Your task to perform on an android device: see tabs open on other devices in the chrome app Image 0: 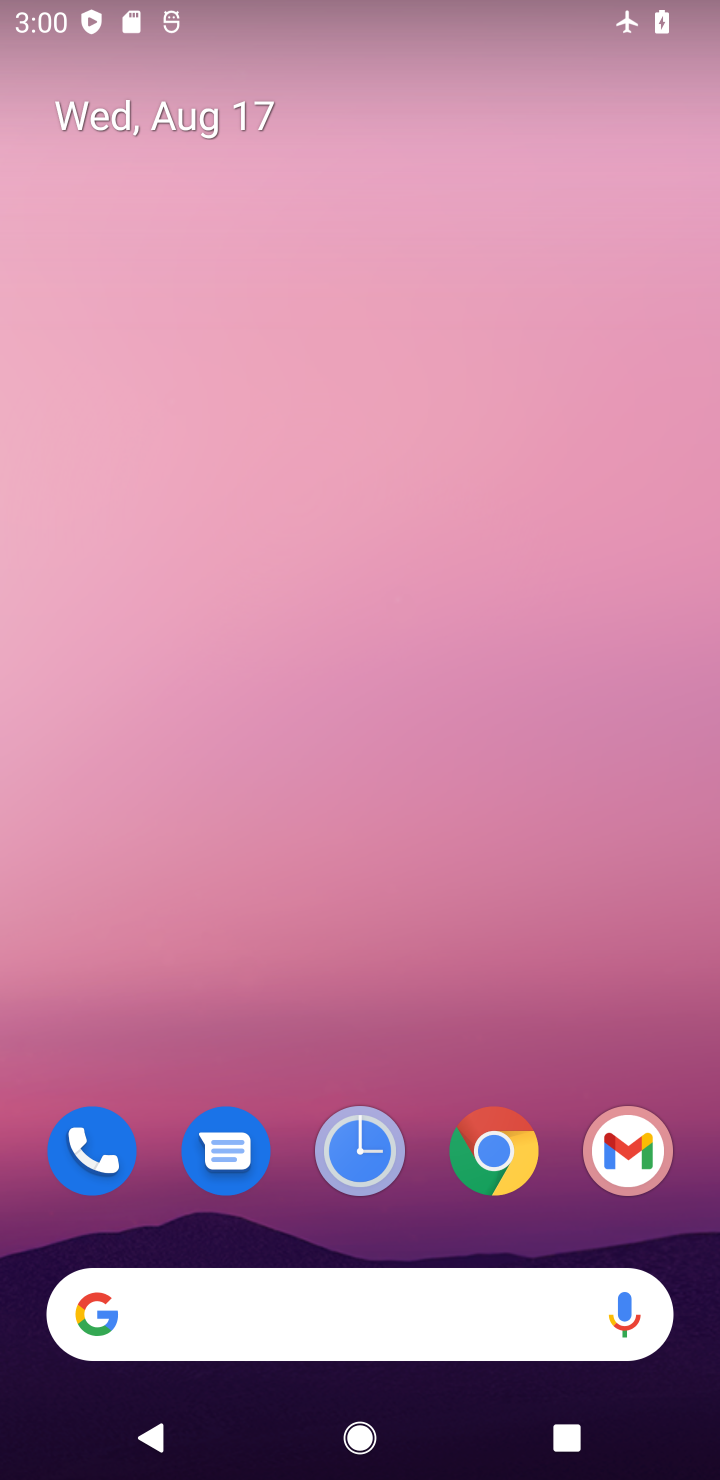
Step 0: drag from (229, 1185) to (229, 841)
Your task to perform on an android device: see tabs open on other devices in the chrome app Image 1: 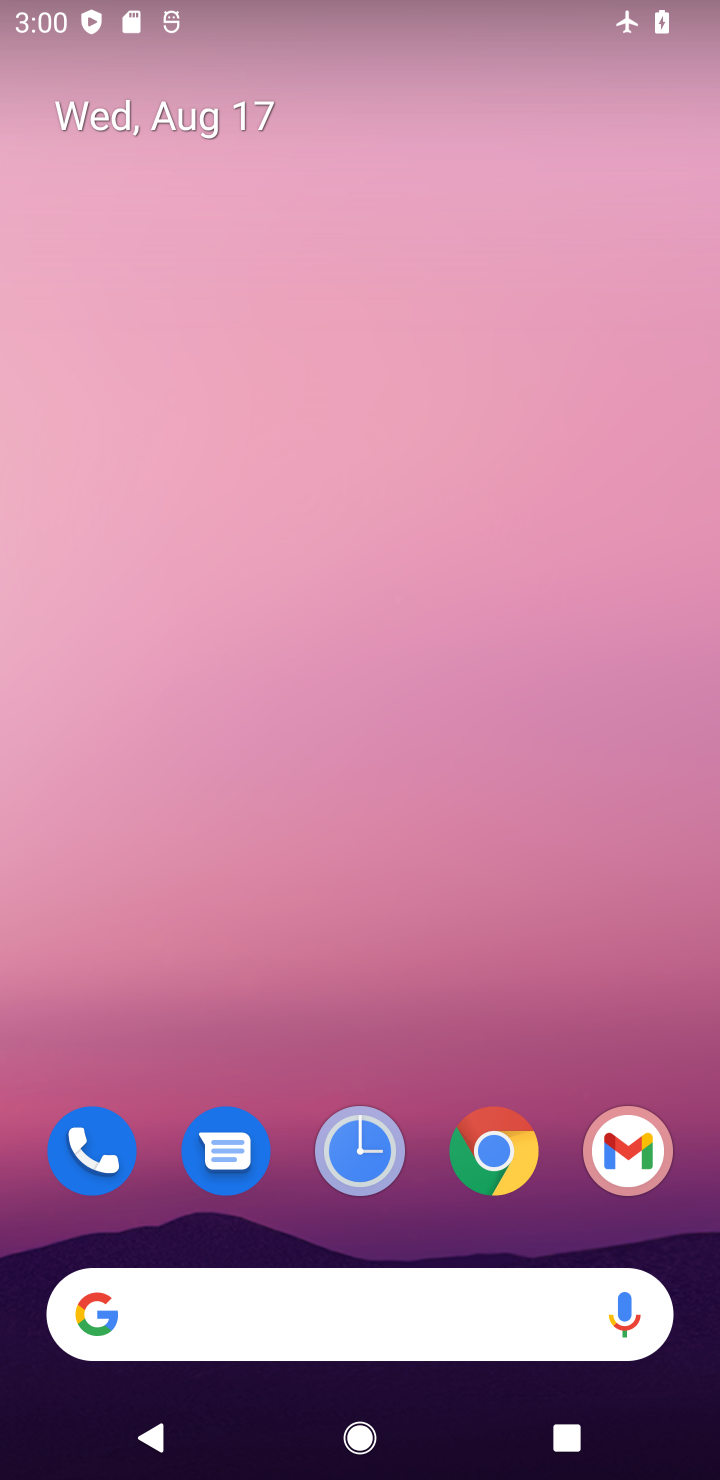
Step 1: drag from (428, 908) to (451, 446)
Your task to perform on an android device: see tabs open on other devices in the chrome app Image 2: 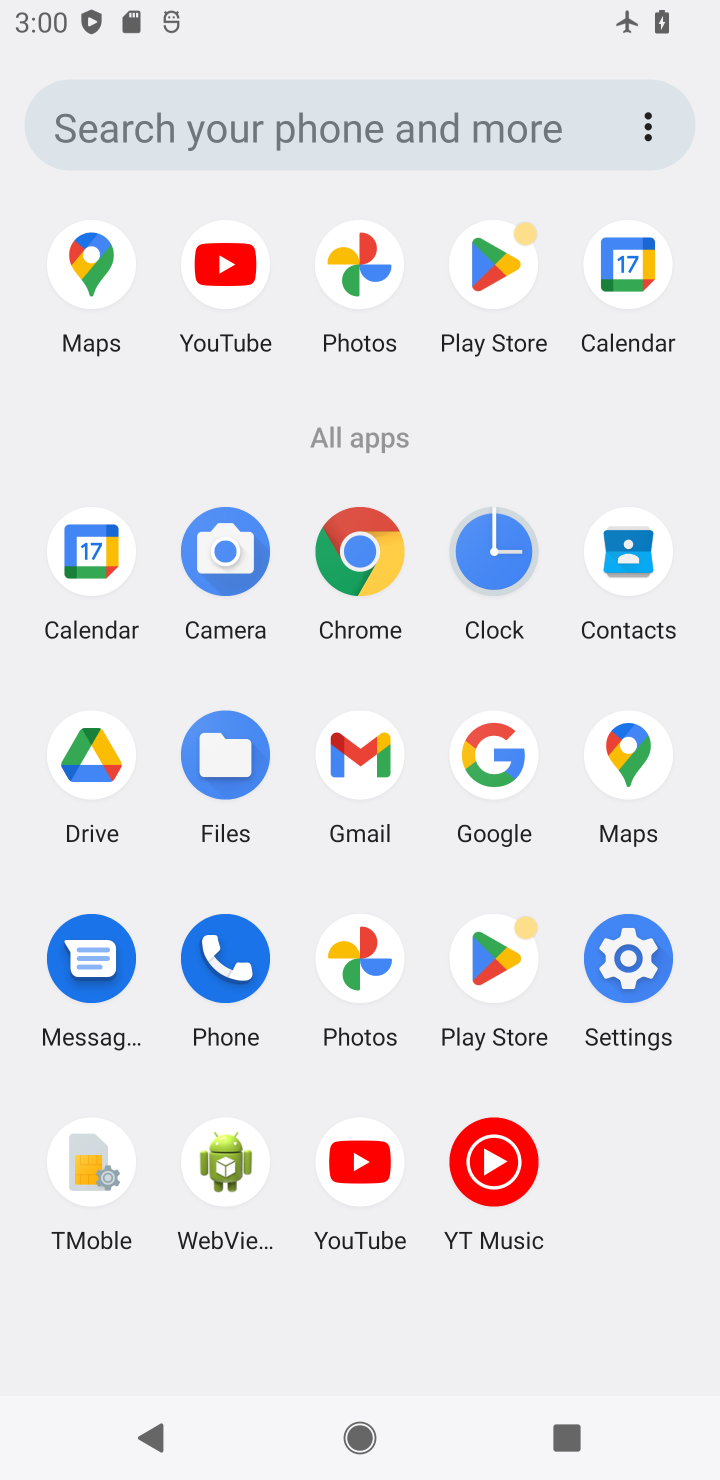
Step 2: click (377, 545)
Your task to perform on an android device: see tabs open on other devices in the chrome app Image 3: 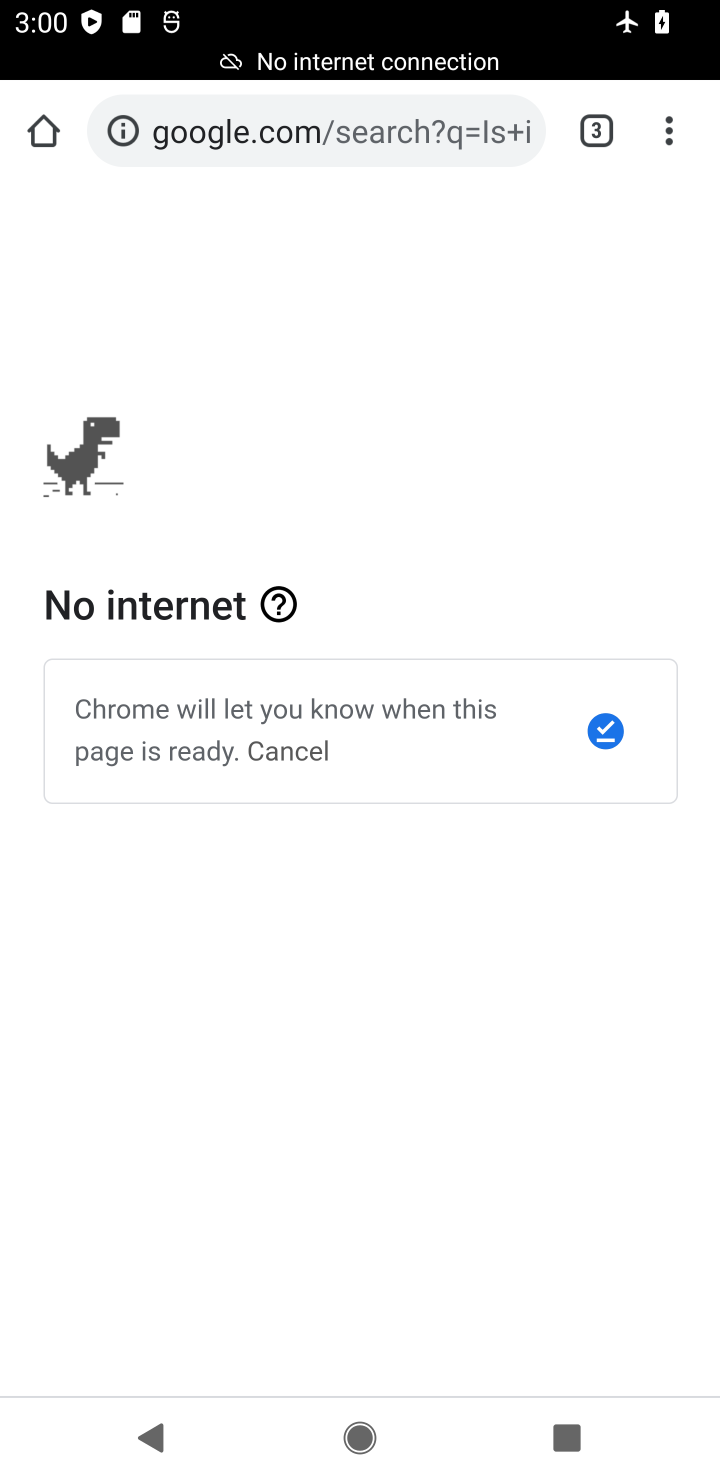
Step 3: click (672, 141)
Your task to perform on an android device: see tabs open on other devices in the chrome app Image 4: 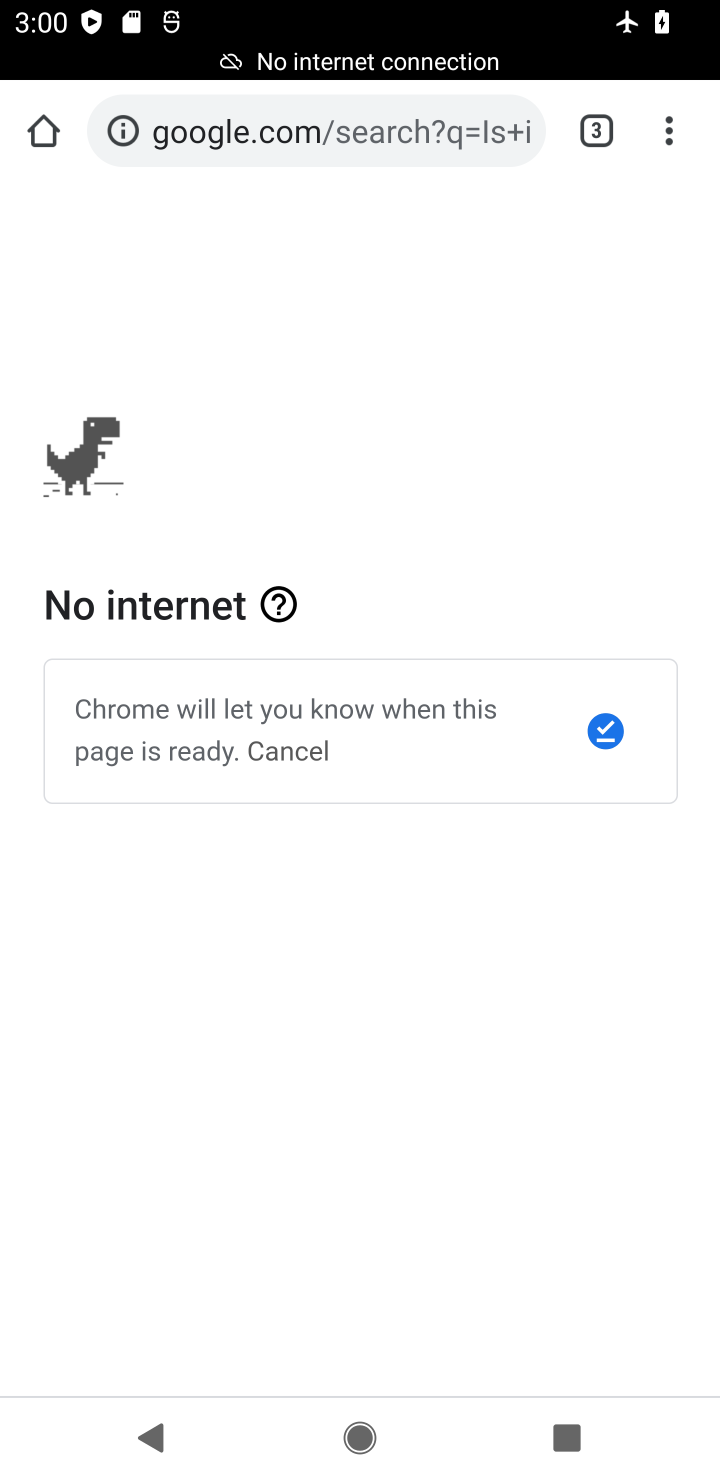
Step 4: click (694, 117)
Your task to perform on an android device: see tabs open on other devices in the chrome app Image 5: 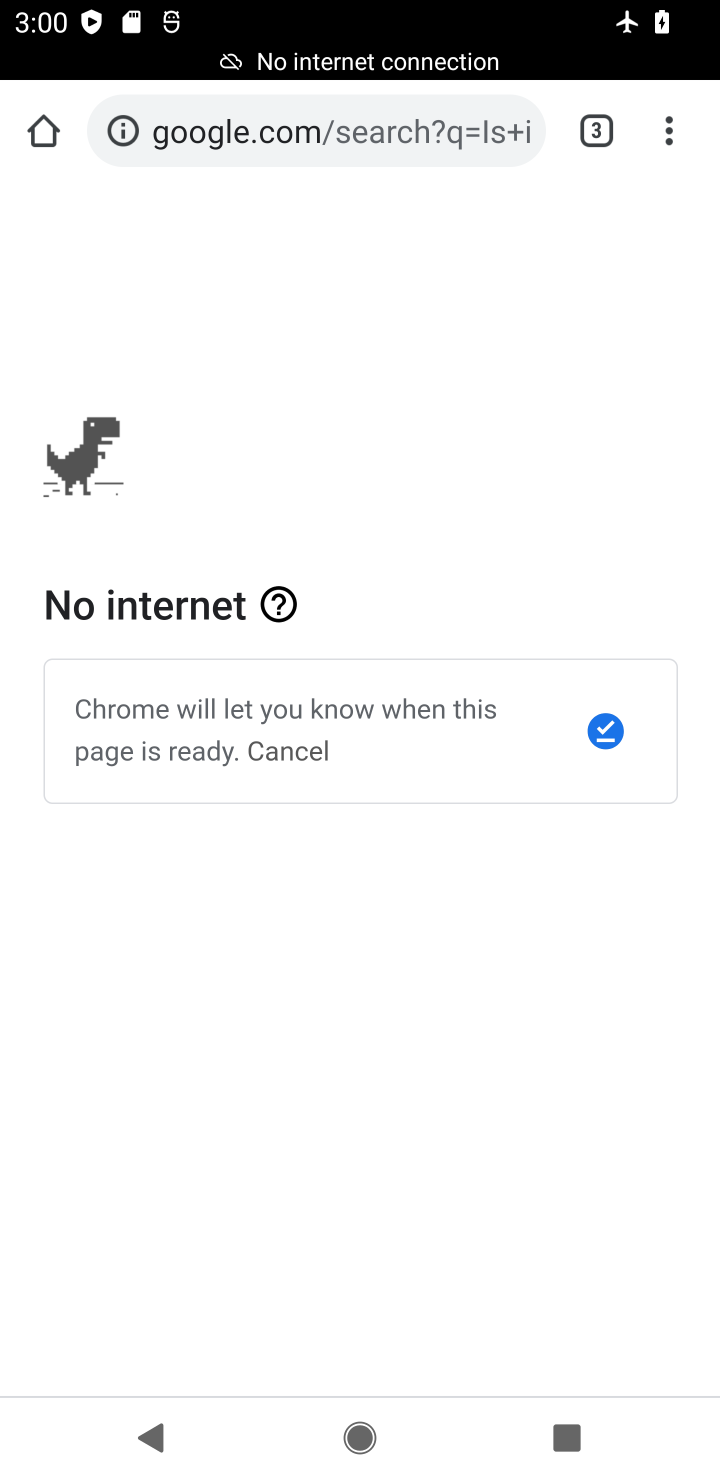
Step 5: click (689, 128)
Your task to perform on an android device: see tabs open on other devices in the chrome app Image 6: 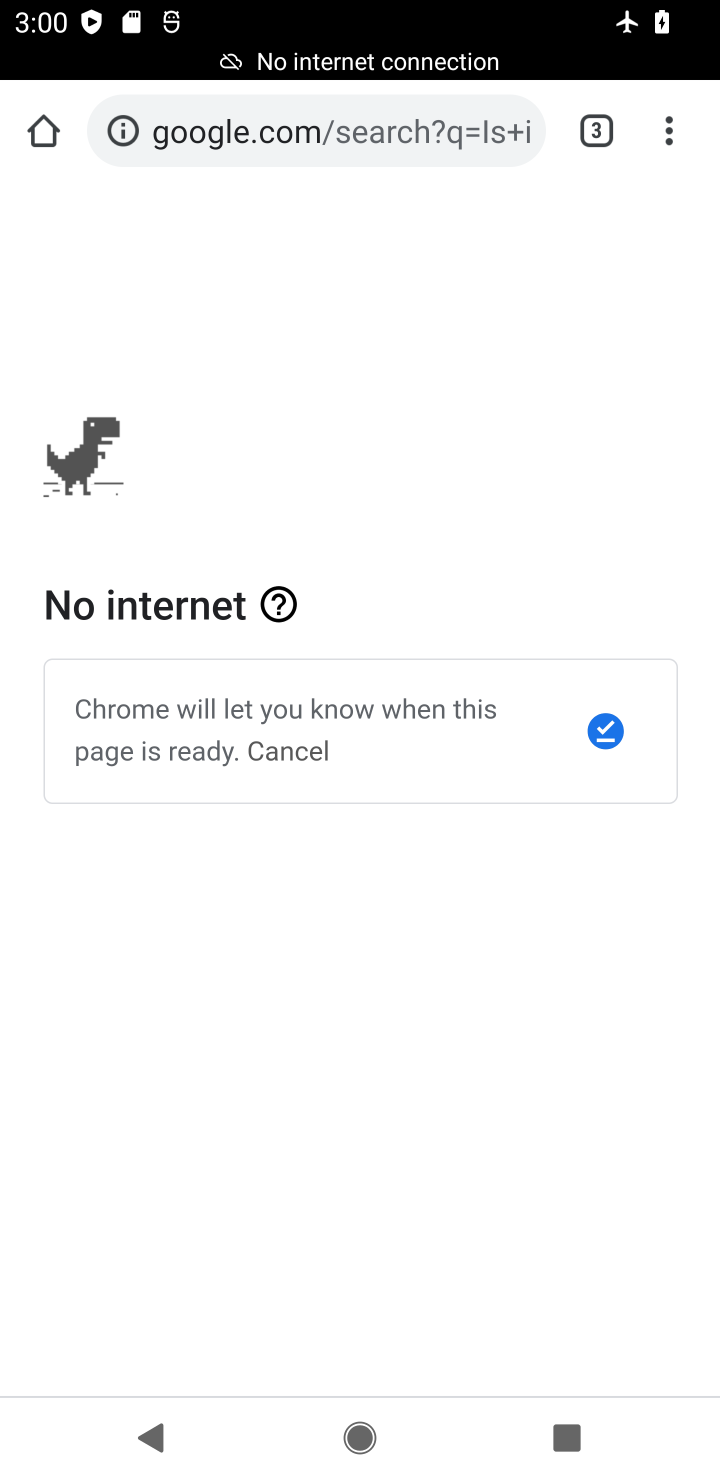
Step 6: click (669, 132)
Your task to perform on an android device: see tabs open on other devices in the chrome app Image 7: 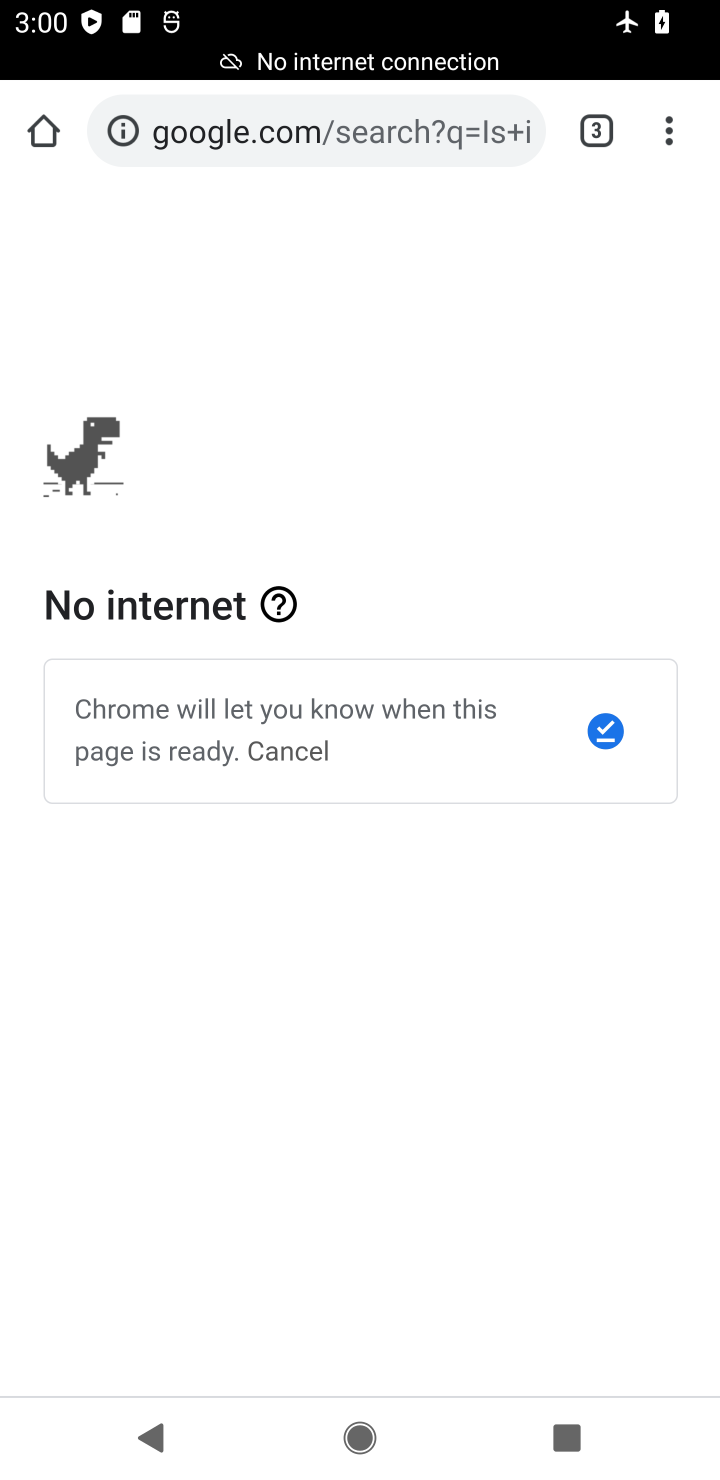
Step 7: click (669, 132)
Your task to perform on an android device: see tabs open on other devices in the chrome app Image 8: 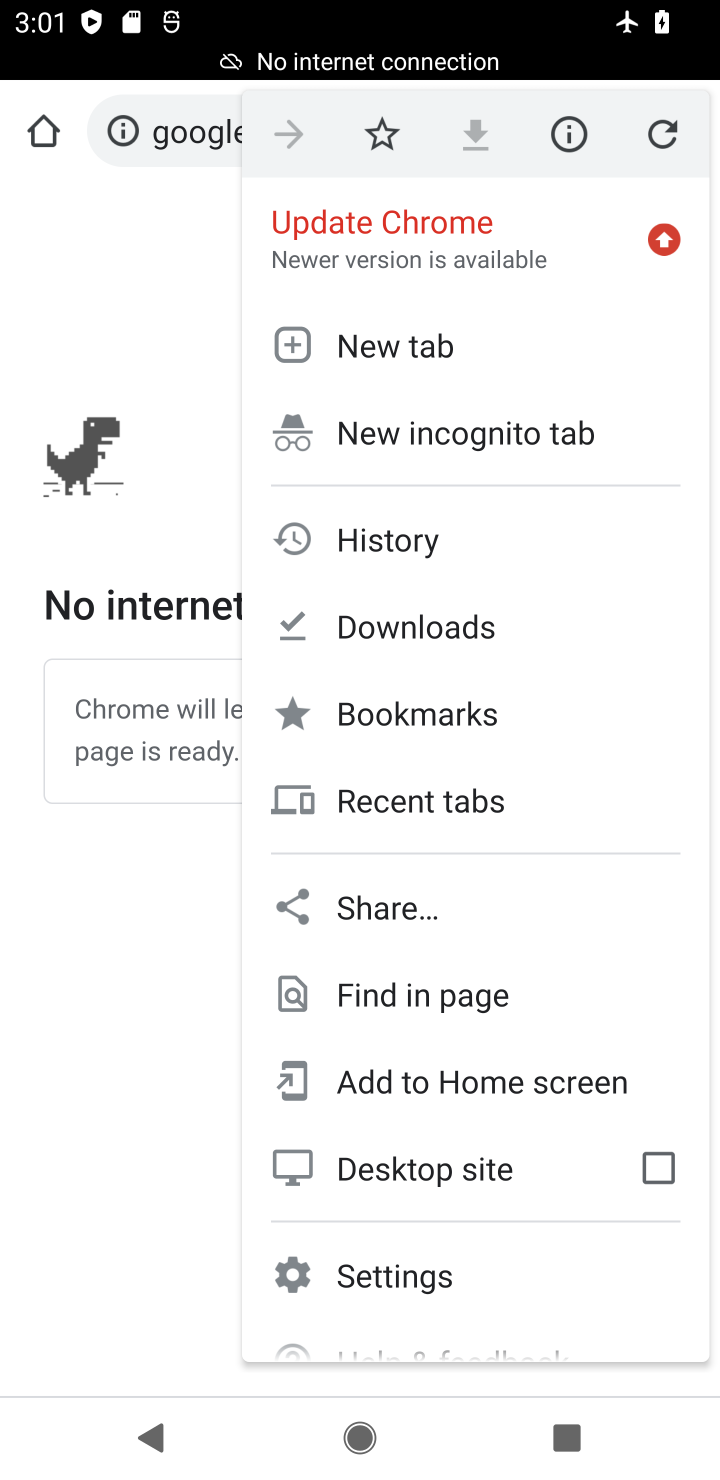
Step 8: click (401, 720)
Your task to perform on an android device: see tabs open on other devices in the chrome app Image 9: 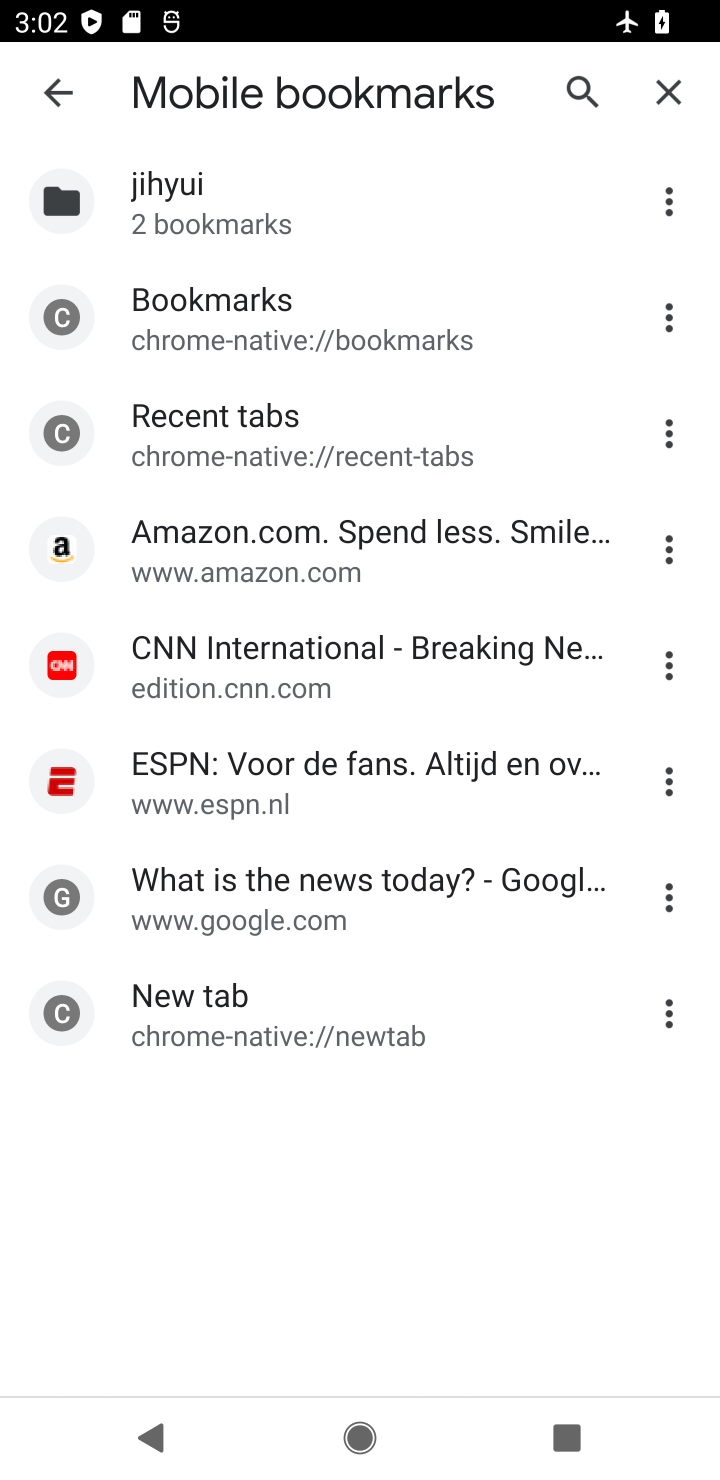
Step 9: task complete